Your task to perform on an android device: Search for 3d printer on AliExpress Image 0: 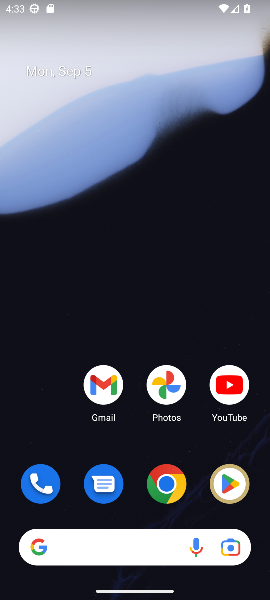
Step 0: click (167, 479)
Your task to perform on an android device: Search for 3d printer on AliExpress Image 1: 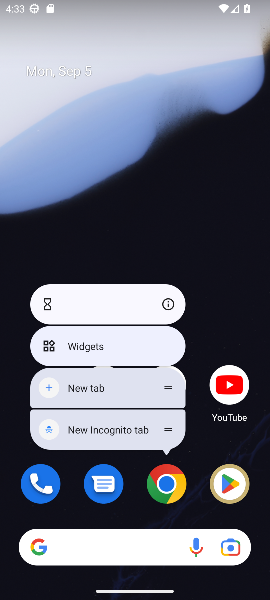
Step 1: click (162, 485)
Your task to perform on an android device: Search for 3d printer on AliExpress Image 2: 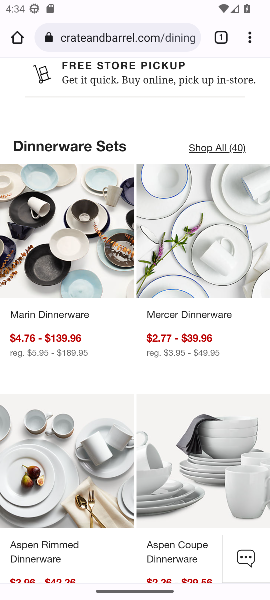
Step 2: click (147, 34)
Your task to perform on an android device: Search for 3d printer on AliExpress Image 3: 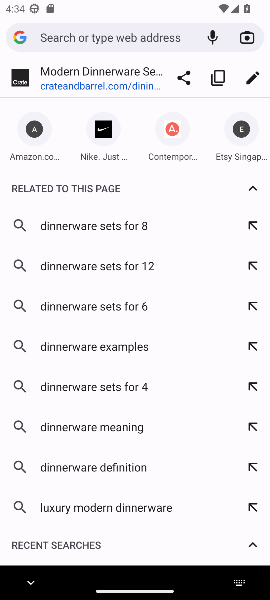
Step 3: type "AliExpress"
Your task to perform on an android device: Search for 3d printer on AliExpress Image 4: 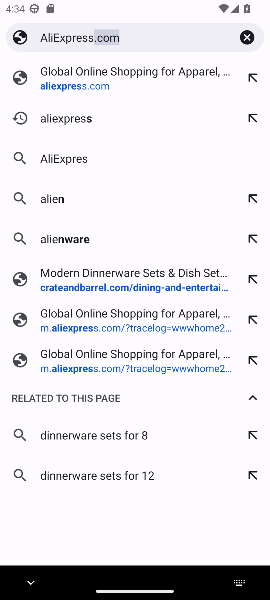
Step 4: press enter
Your task to perform on an android device: Search for 3d printer on AliExpress Image 5: 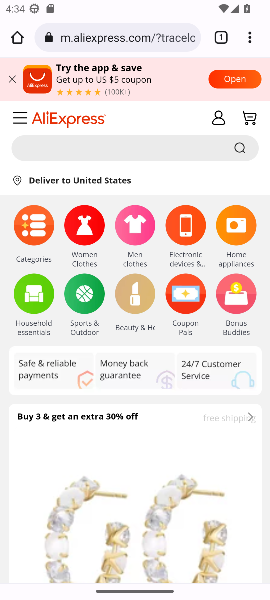
Step 5: click (135, 148)
Your task to perform on an android device: Search for 3d printer on AliExpress Image 6: 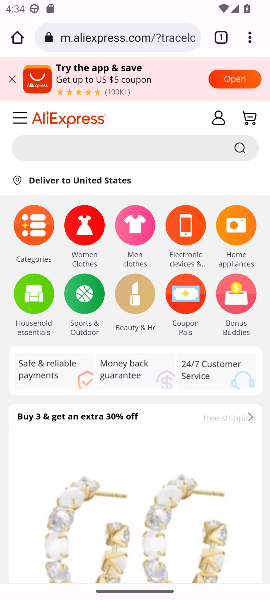
Step 6: click (75, 149)
Your task to perform on an android device: Search for 3d printer on AliExpress Image 7: 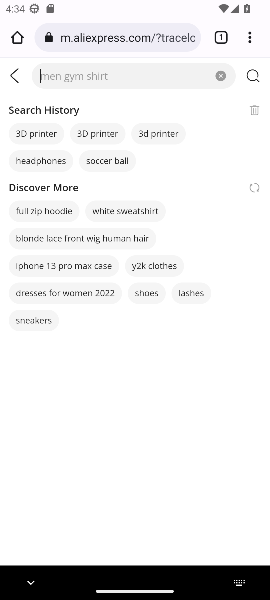
Step 7: type " 3d printer "
Your task to perform on an android device: Search for 3d printer on AliExpress Image 8: 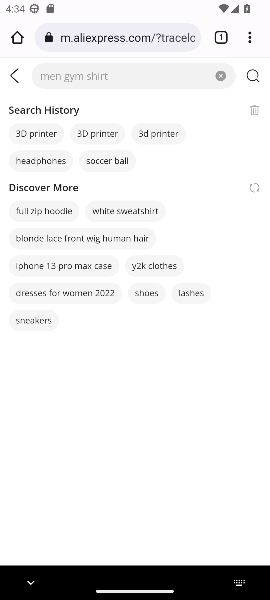
Step 8: press enter
Your task to perform on an android device: Search for 3d printer on AliExpress Image 9: 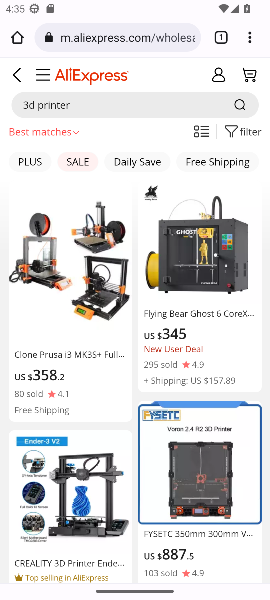
Step 9: task complete